Your task to perform on an android device: What's the weather today? Image 0: 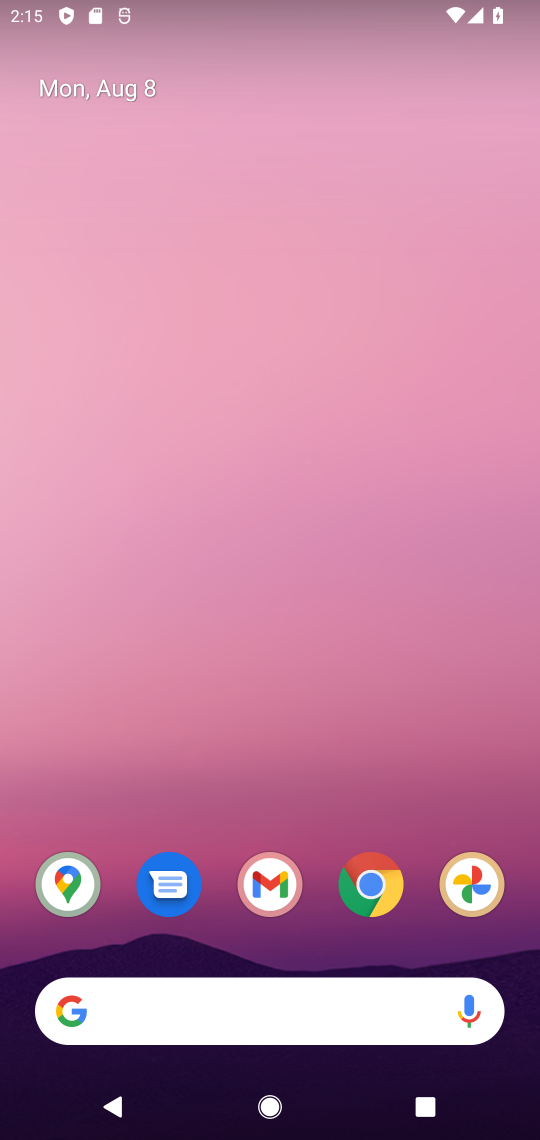
Step 0: click (253, 1016)
Your task to perform on an android device: What's the weather today? Image 1: 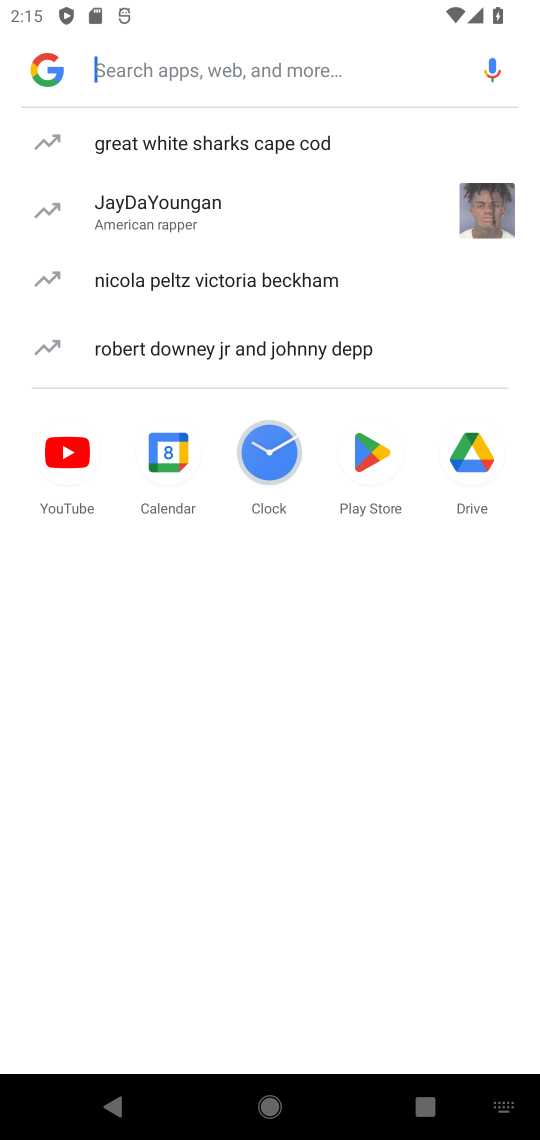
Step 1: type "Is it going to rain tomorrow"
Your task to perform on an android device: What's the weather today? Image 2: 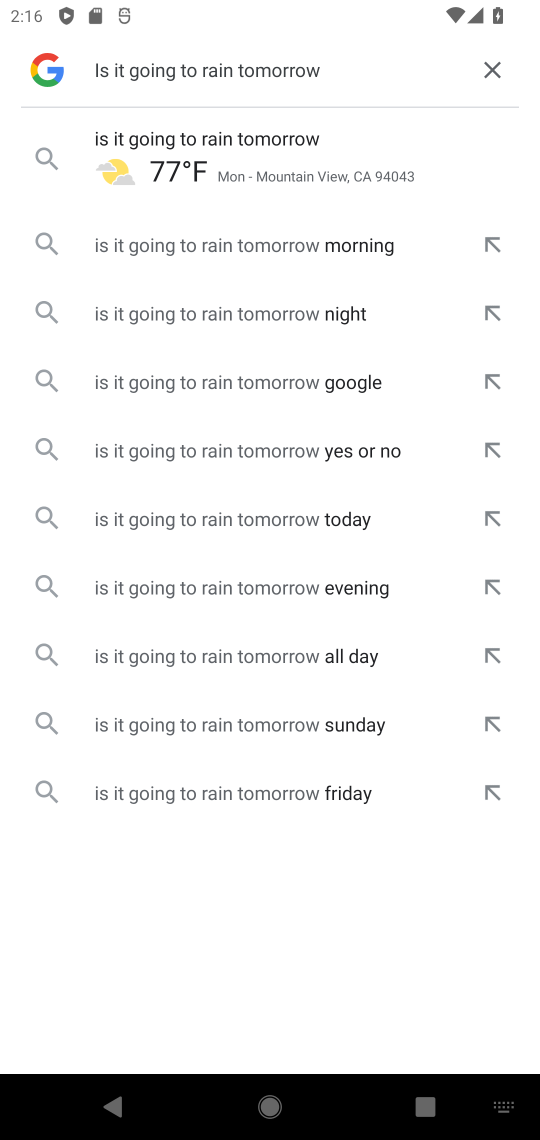
Step 2: click (171, 134)
Your task to perform on an android device: What's the weather today? Image 3: 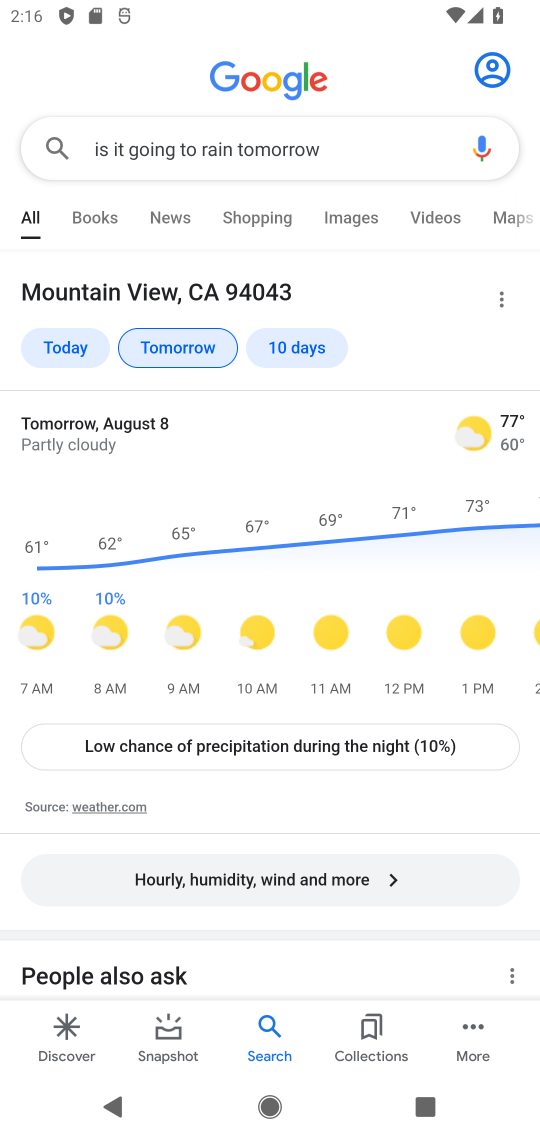
Step 3: click (64, 347)
Your task to perform on an android device: What's the weather today? Image 4: 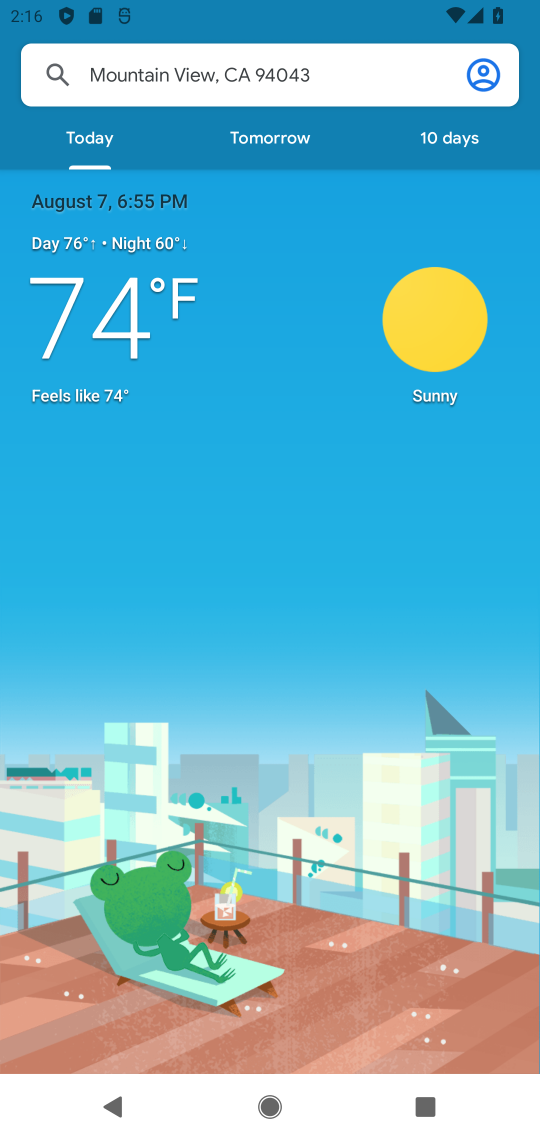
Step 4: task complete